Your task to perform on an android device: manage bookmarks in the chrome app Image 0: 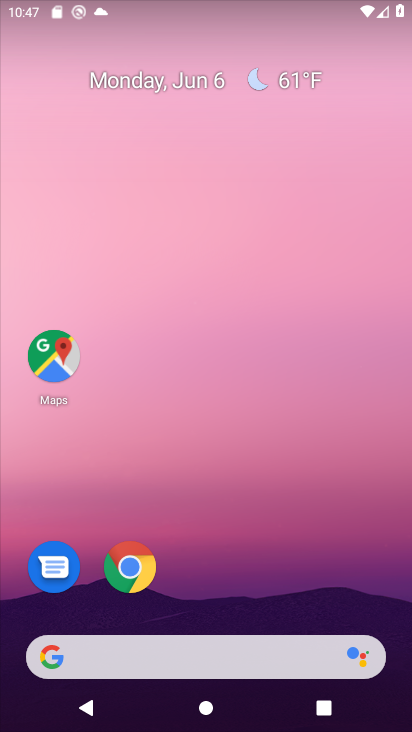
Step 0: click (136, 596)
Your task to perform on an android device: manage bookmarks in the chrome app Image 1: 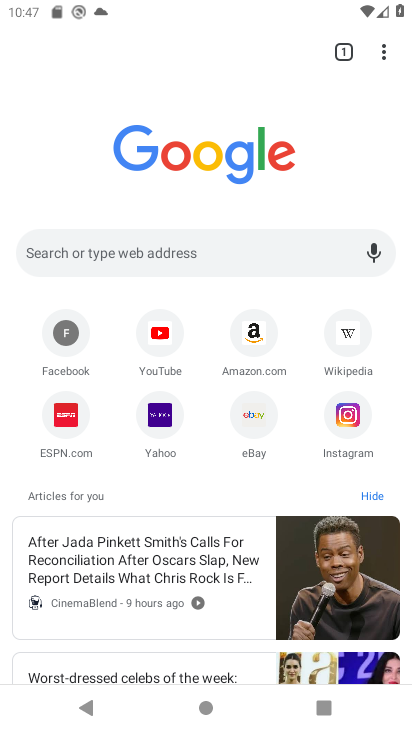
Step 1: click (384, 55)
Your task to perform on an android device: manage bookmarks in the chrome app Image 2: 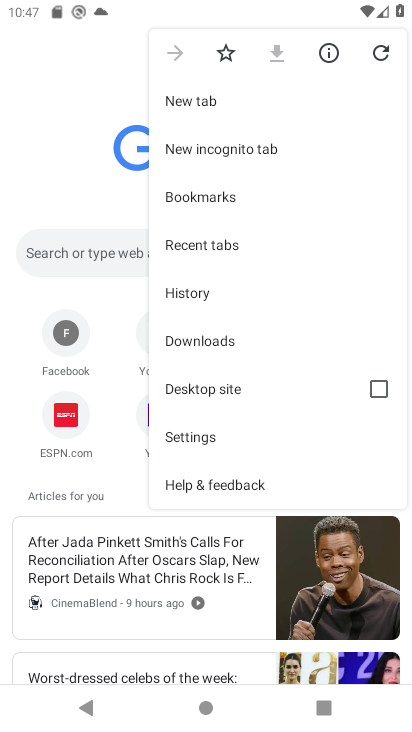
Step 2: click (185, 198)
Your task to perform on an android device: manage bookmarks in the chrome app Image 3: 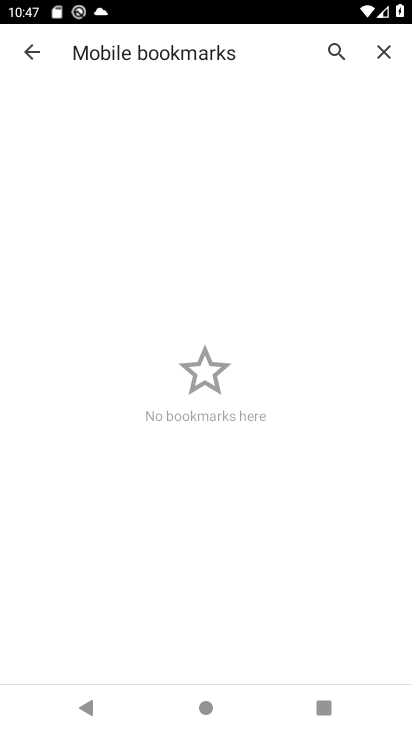
Step 3: task complete